Your task to perform on an android device: set an alarm Image 0: 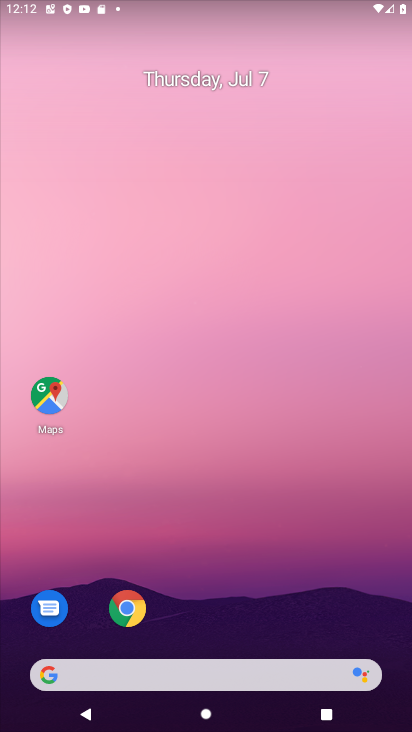
Step 0: drag from (223, 608) to (243, 148)
Your task to perform on an android device: set an alarm Image 1: 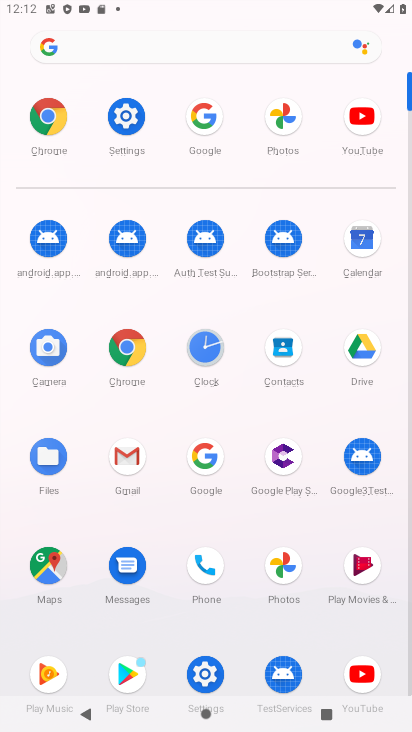
Step 1: click (205, 350)
Your task to perform on an android device: set an alarm Image 2: 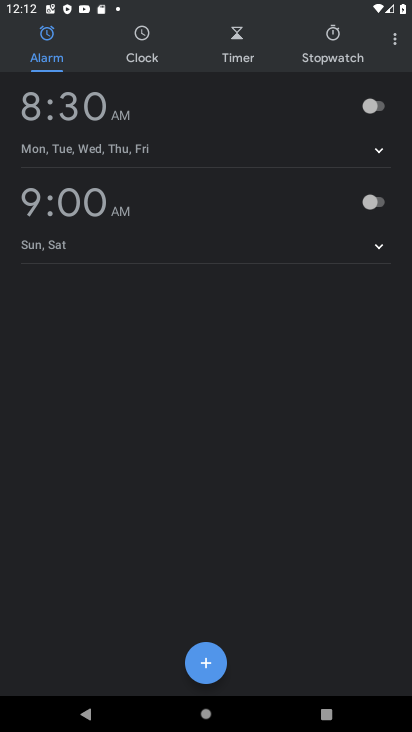
Step 2: click (201, 675)
Your task to perform on an android device: set an alarm Image 3: 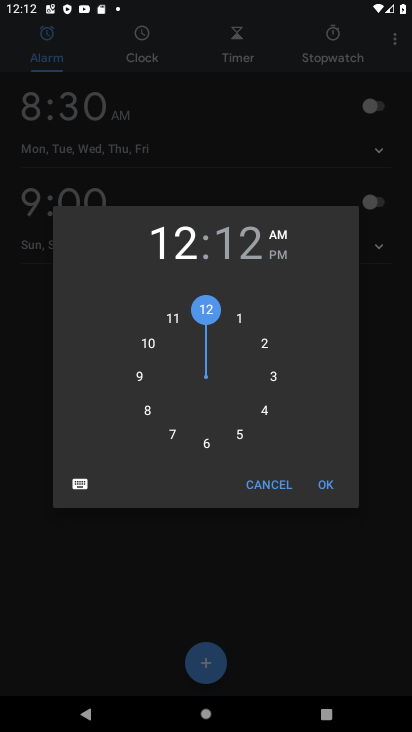
Step 3: click (212, 446)
Your task to perform on an android device: set an alarm Image 4: 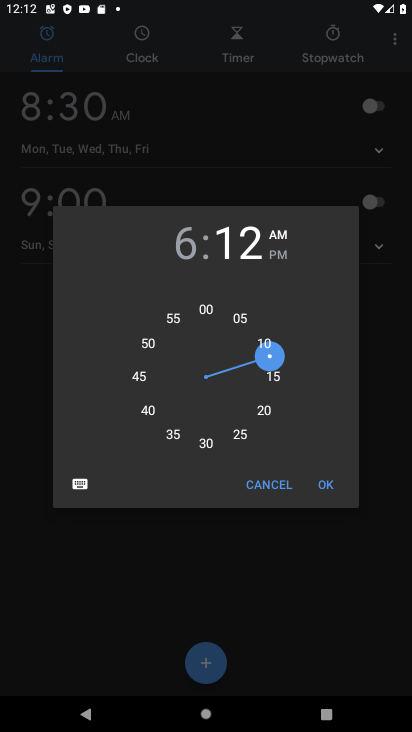
Step 4: click (203, 312)
Your task to perform on an android device: set an alarm Image 5: 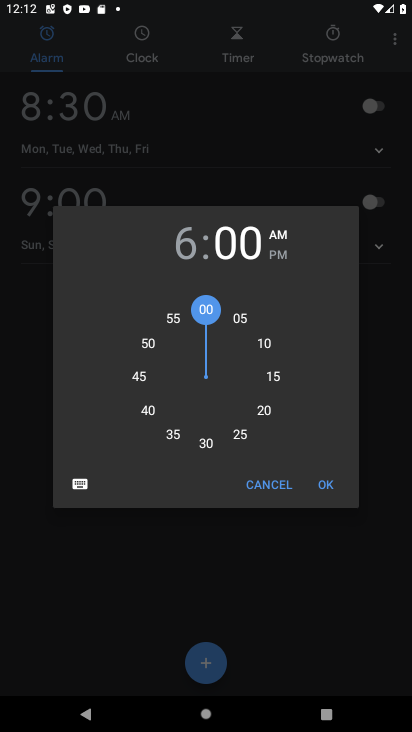
Step 5: click (276, 253)
Your task to perform on an android device: set an alarm Image 6: 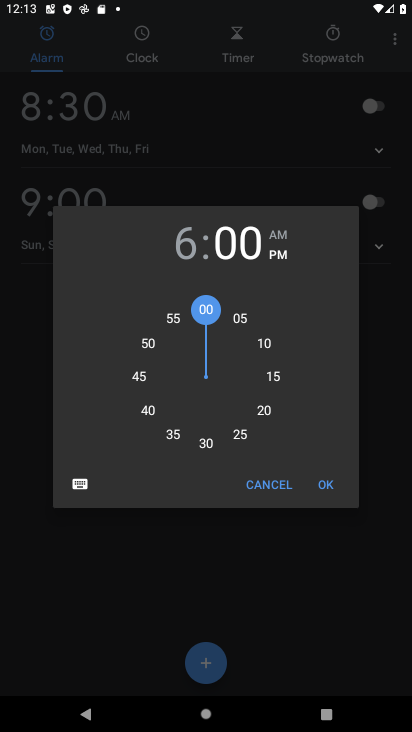
Step 6: click (325, 486)
Your task to perform on an android device: set an alarm Image 7: 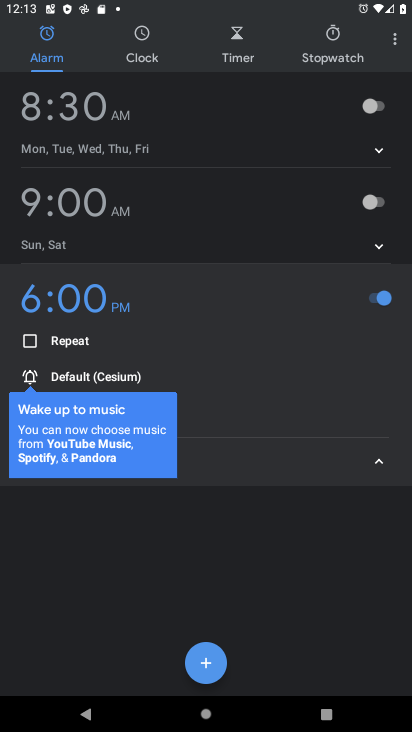
Step 7: task complete